Your task to perform on an android device: Open accessibility settings Image 0: 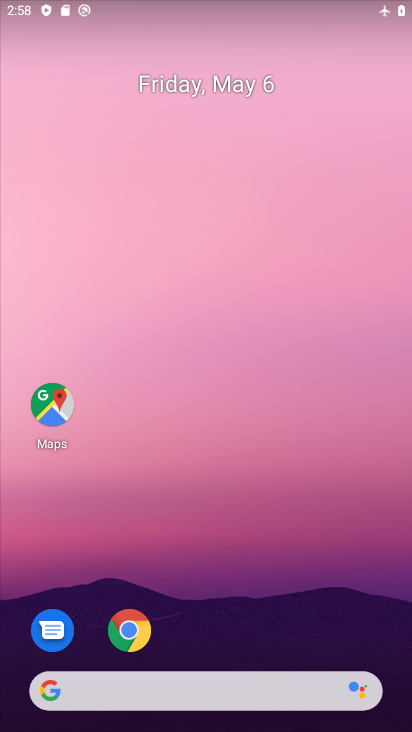
Step 0: drag from (241, 650) to (197, 39)
Your task to perform on an android device: Open accessibility settings Image 1: 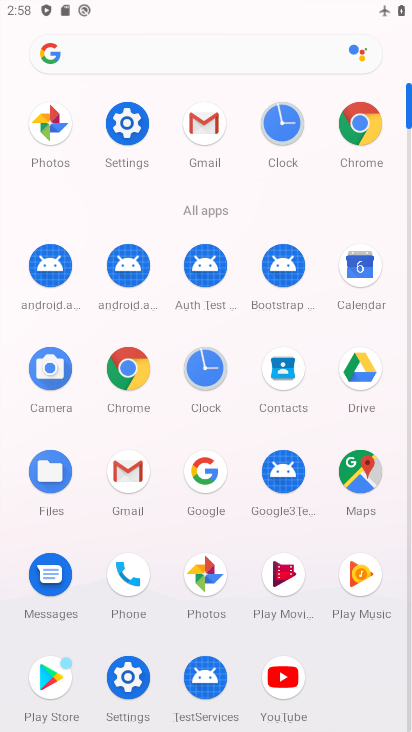
Step 1: click (122, 134)
Your task to perform on an android device: Open accessibility settings Image 2: 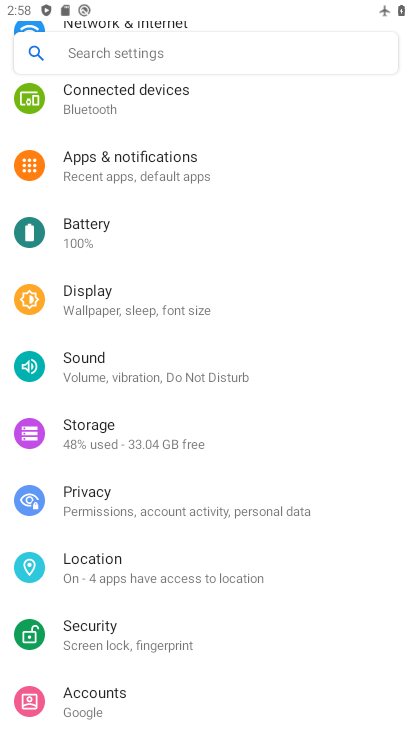
Step 2: drag from (208, 665) to (146, 484)
Your task to perform on an android device: Open accessibility settings Image 3: 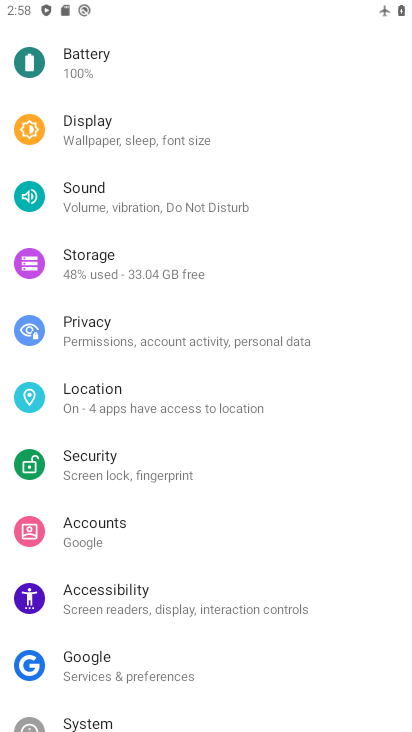
Step 3: click (140, 605)
Your task to perform on an android device: Open accessibility settings Image 4: 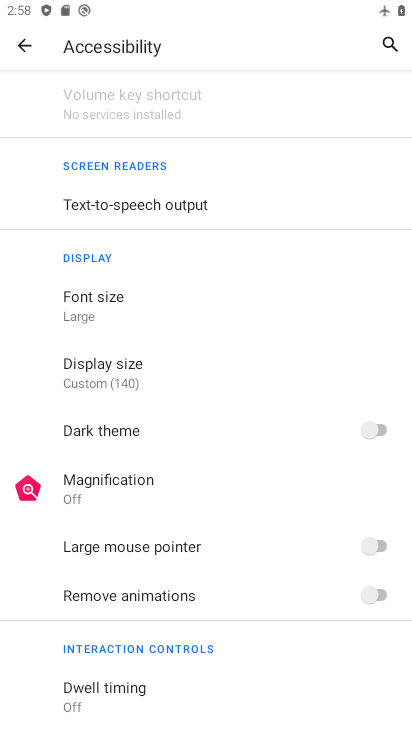
Step 4: task complete